Your task to perform on an android device: read, delete, or share a saved page in the chrome app Image 0: 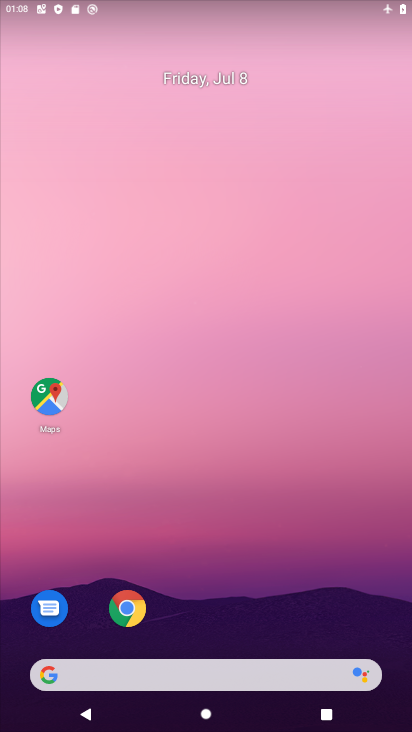
Step 0: drag from (175, 652) to (191, 46)
Your task to perform on an android device: read, delete, or share a saved page in the chrome app Image 1: 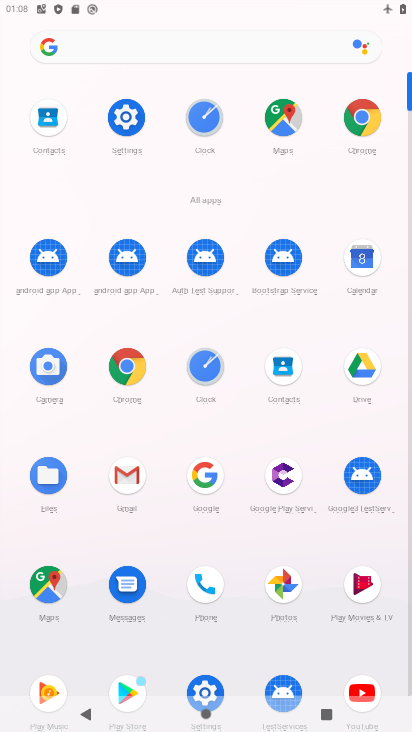
Step 1: click (371, 93)
Your task to perform on an android device: read, delete, or share a saved page in the chrome app Image 2: 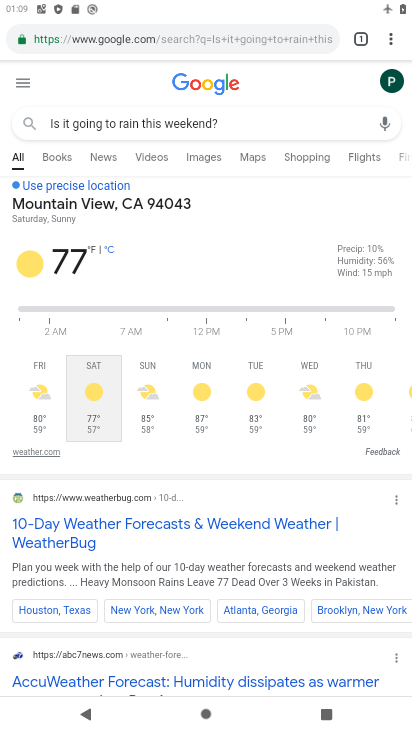
Step 2: drag from (391, 39) to (280, 285)
Your task to perform on an android device: read, delete, or share a saved page in the chrome app Image 3: 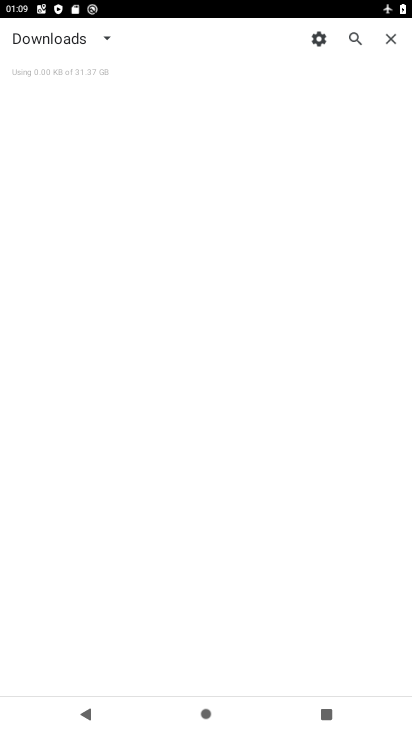
Step 3: click (92, 44)
Your task to perform on an android device: read, delete, or share a saved page in the chrome app Image 4: 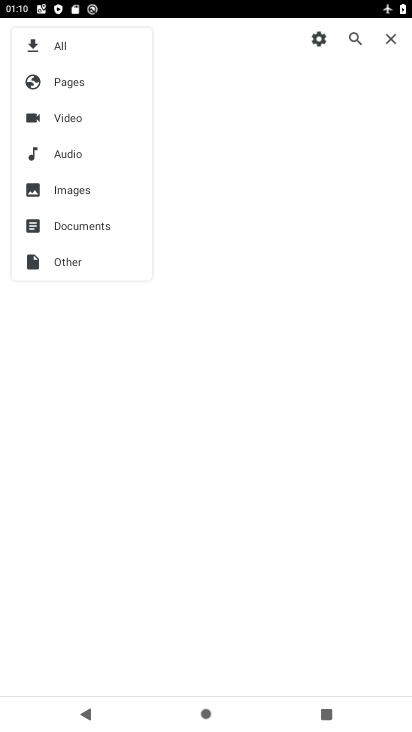
Step 4: click (72, 84)
Your task to perform on an android device: read, delete, or share a saved page in the chrome app Image 5: 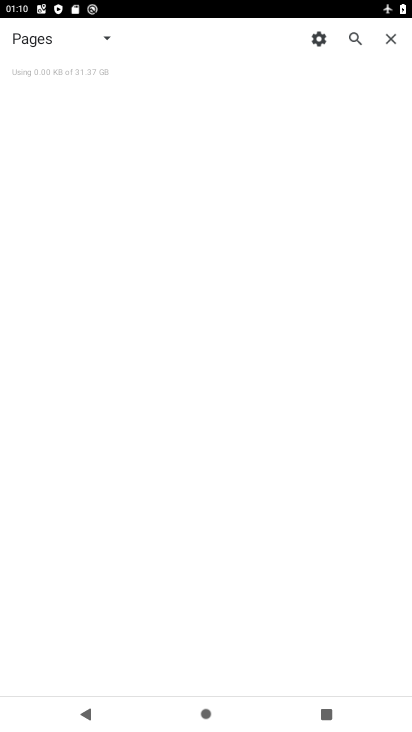
Step 5: task complete